Your task to perform on an android device: open device folders in google photos Image 0: 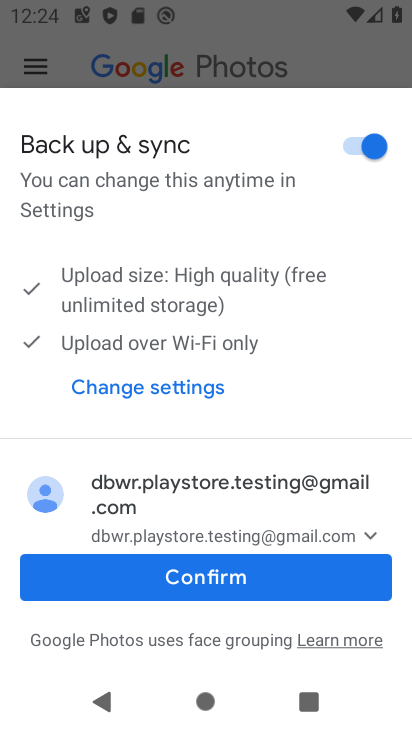
Step 0: click (364, 568)
Your task to perform on an android device: open device folders in google photos Image 1: 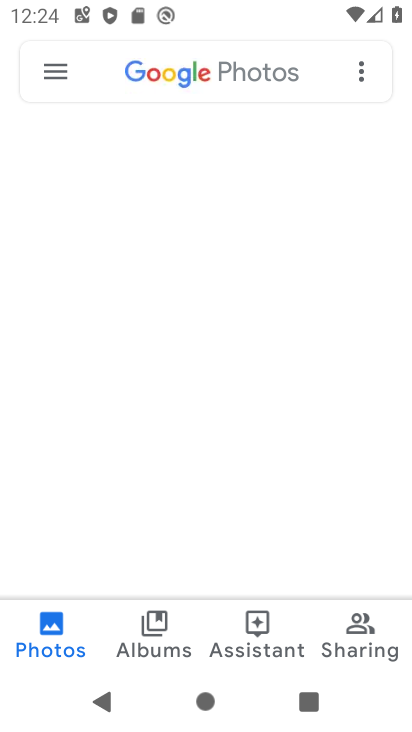
Step 1: click (41, 66)
Your task to perform on an android device: open device folders in google photos Image 2: 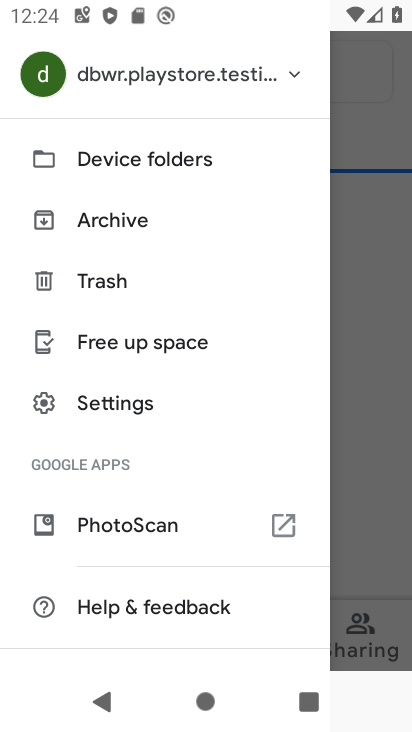
Step 2: click (96, 160)
Your task to perform on an android device: open device folders in google photos Image 3: 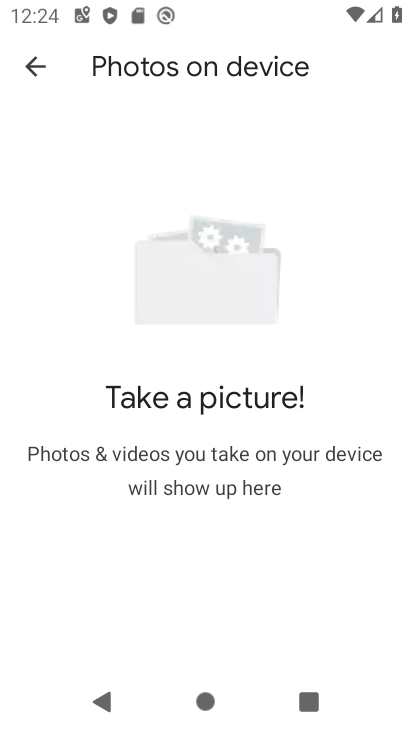
Step 3: task complete